Your task to perform on an android device: toggle data saver in the chrome app Image 0: 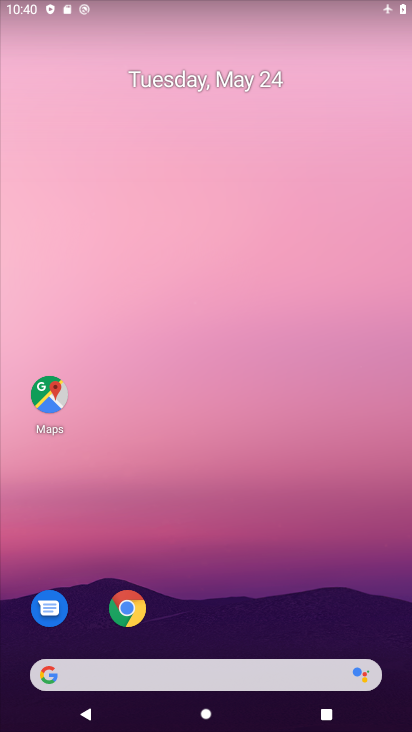
Step 0: click (126, 610)
Your task to perform on an android device: toggle data saver in the chrome app Image 1: 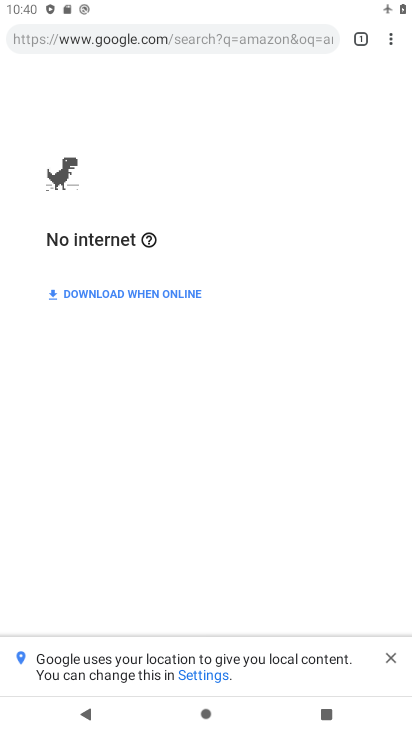
Step 1: click (389, 40)
Your task to perform on an android device: toggle data saver in the chrome app Image 2: 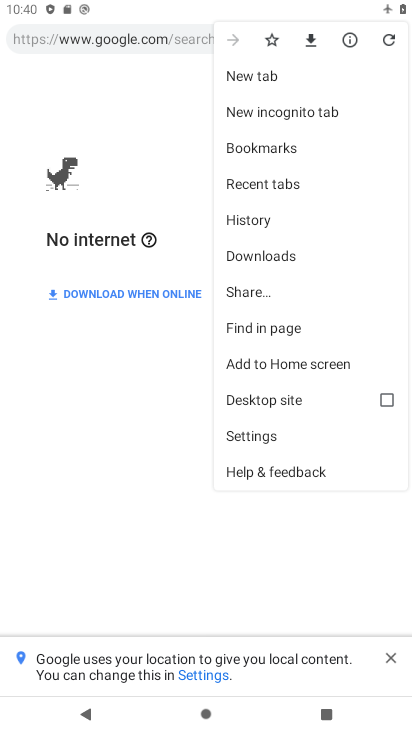
Step 2: click (257, 429)
Your task to perform on an android device: toggle data saver in the chrome app Image 3: 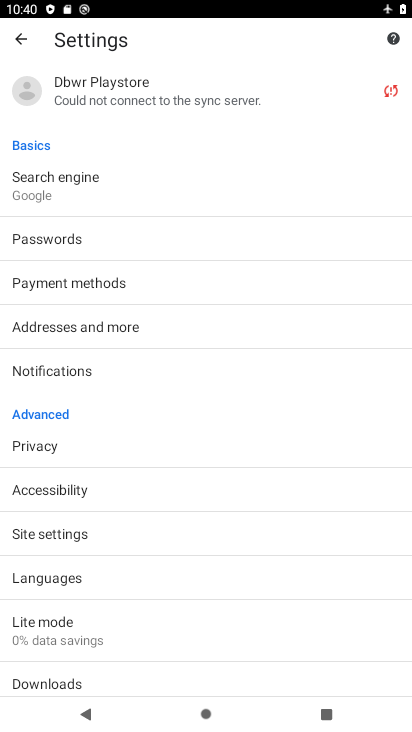
Step 3: click (39, 618)
Your task to perform on an android device: toggle data saver in the chrome app Image 4: 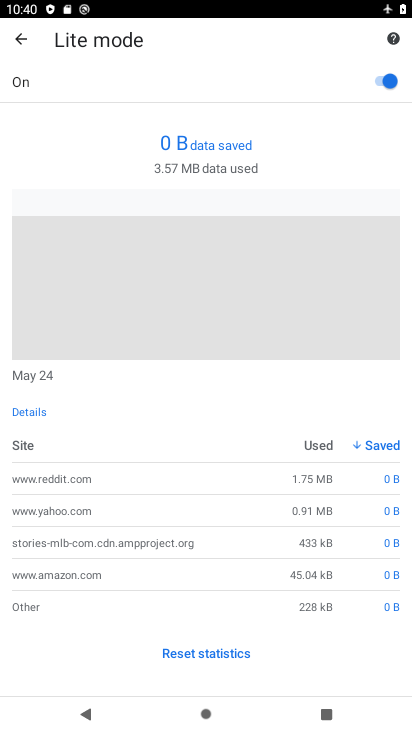
Step 4: click (376, 75)
Your task to perform on an android device: toggle data saver in the chrome app Image 5: 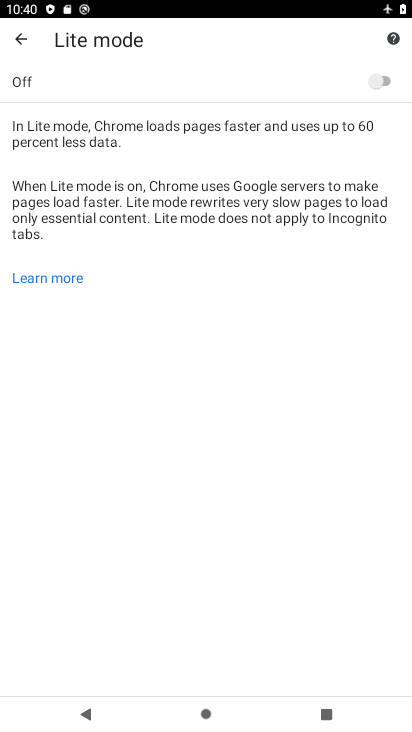
Step 5: task complete